Your task to perform on an android device: Show me recent news Image 0: 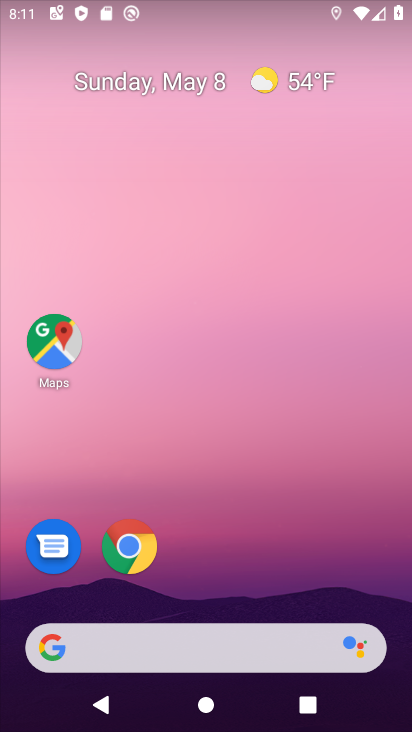
Step 0: drag from (92, 275) to (399, 286)
Your task to perform on an android device: Show me recent news Image 1: 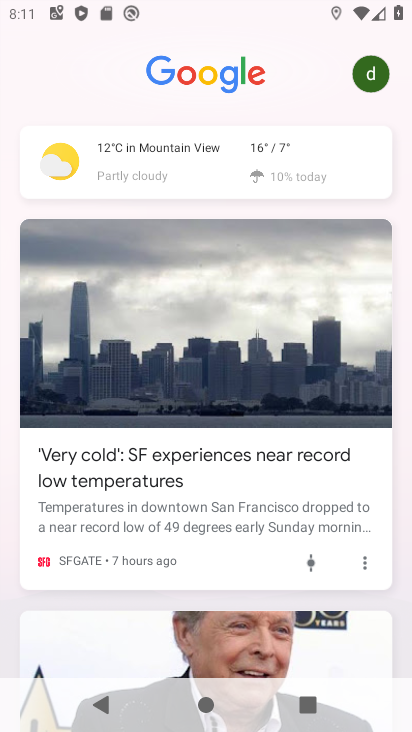
Step 1: task complete